Your task to perform on an android device: Open Maps and search for coffee Image 0: 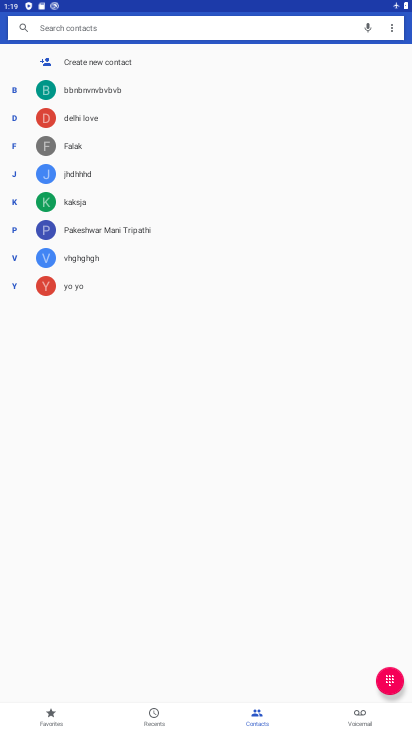
Step 0: press home button
Your task to perform on an android device: Open Maps and search for coffee Image 1: 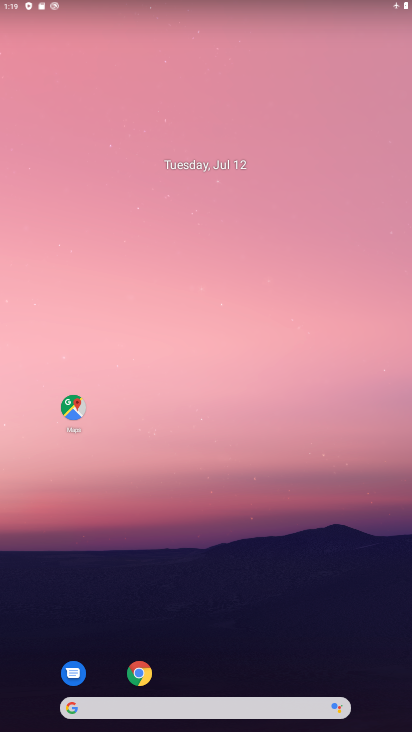
Step 1: drag from (305, 679) to (306, 570)
Your task to perform on an android device: Open Maps and search for coffee Image 2: 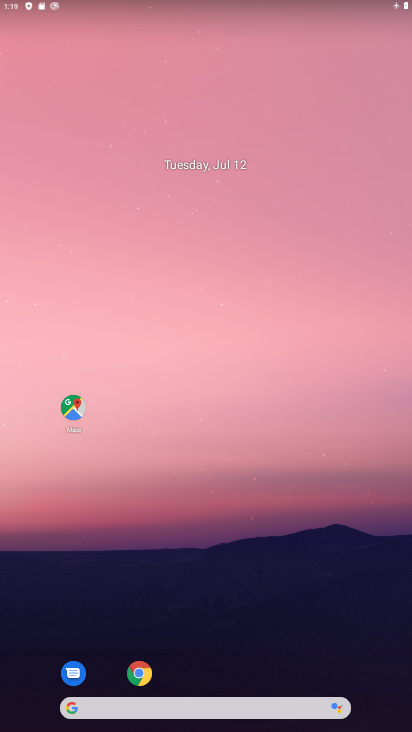
Step 2: drag from (184, 690) to (191, 477)
Your task to perform on an android device: Open Maps and search for coffee Image 3: 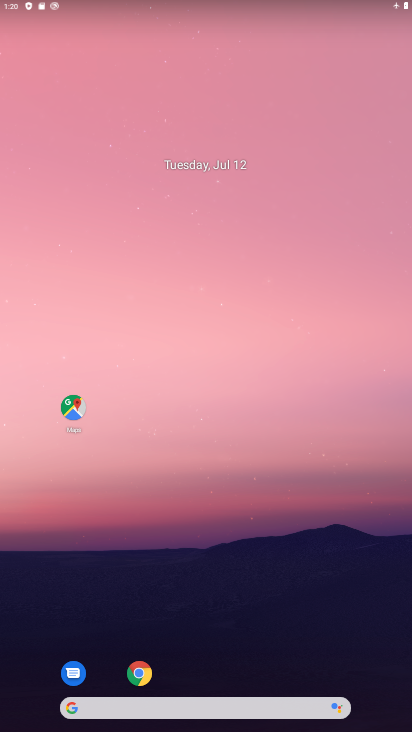
Step 3: drag from (200, 622) to (202, 325)
Your task to perform on an android device: Open Maps and search for coffee Image 4: 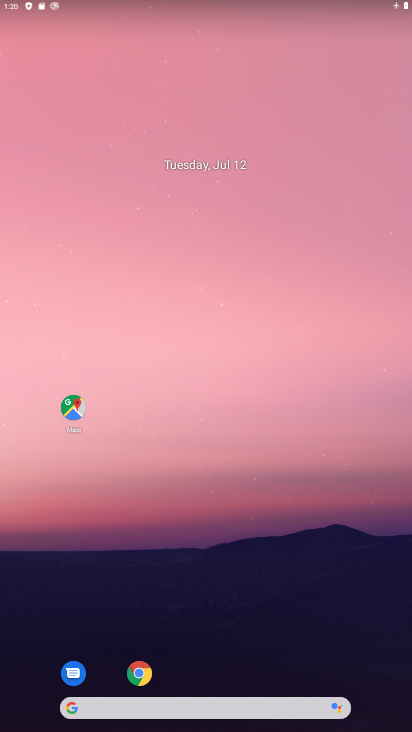
Step 4: click (78, 421)
Your task to perform on an android device: Open Maps and search for coffee Image 5: 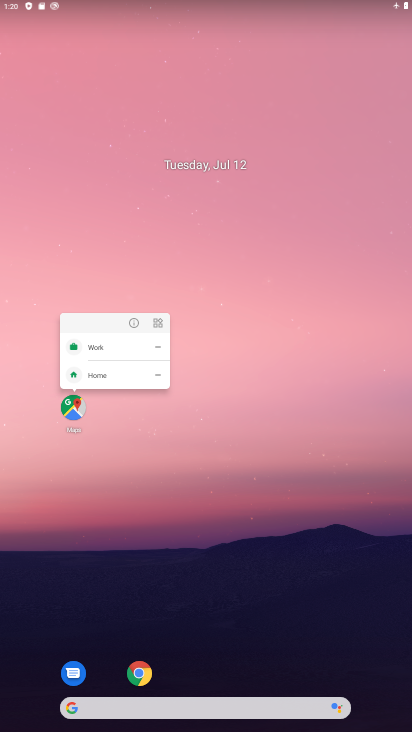
Step 5: click (70, 408)
Your task to perform on an android device: Open Maps and search for coffee Image 6: 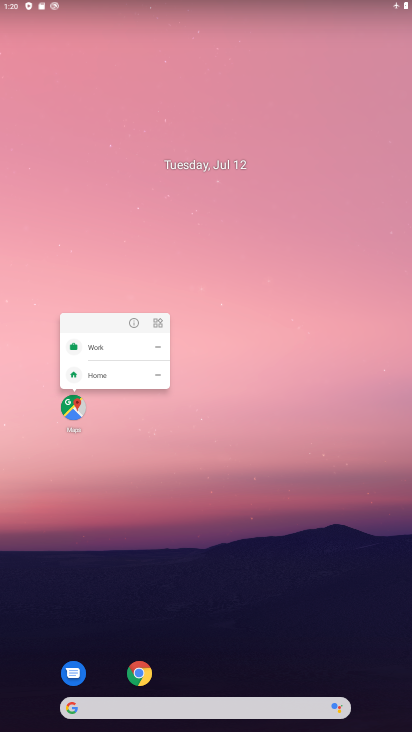
Step 6: click (70, 408)
Your task to perform on an android device: Open Maps and search for coffee Image 7: 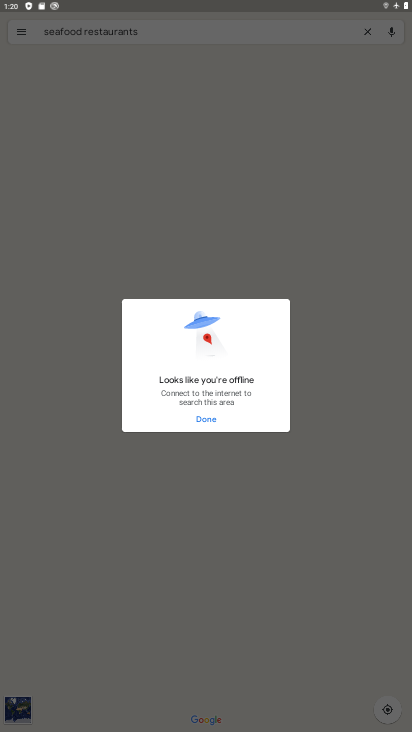
Step 7: task complete